Your task to perform on an android device: Go to sound settings Image 0: 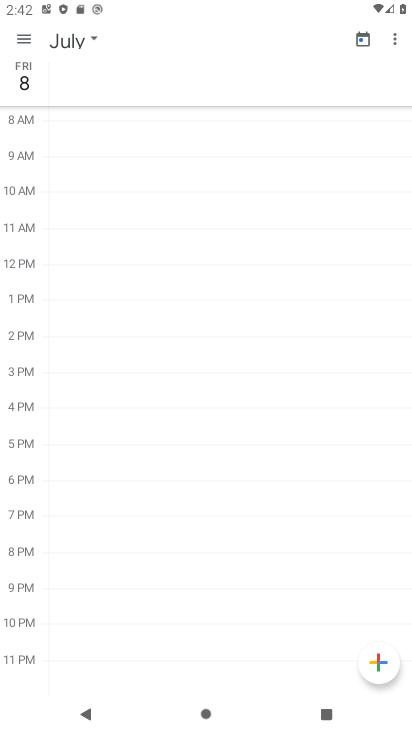
Step 0: press home button
Your task to perform on an android device: Go to sound settings Image 1: 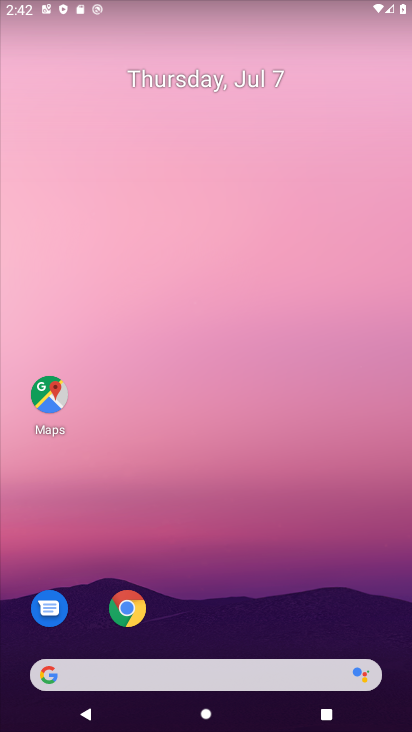
Step 1: drag from (399, 687) to (353, 119)
Your task to perform on an android device: Go to sound settings Image 2: 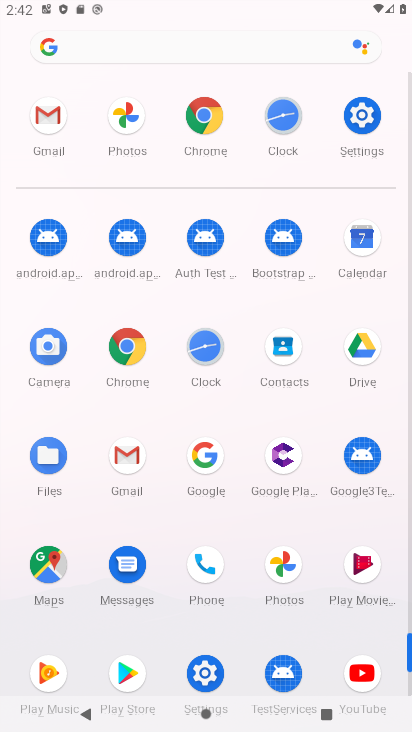
Step 2: click (408, 685)
Your task to perform on an android device: Go to sound settings Image 3: 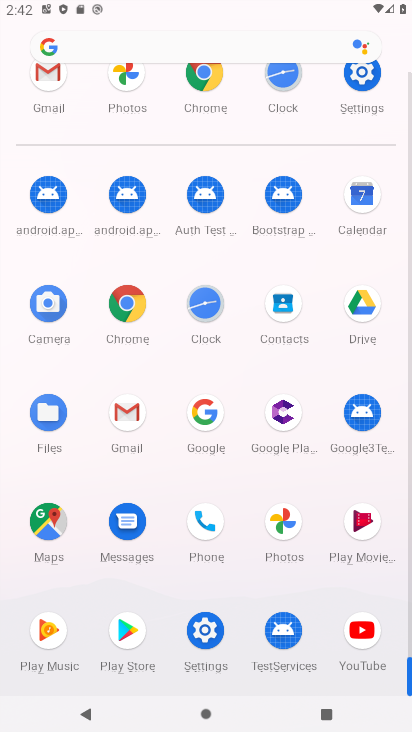
Step 3: click (204, 632)
Your task to perform on an android device: Go to sound settings Image 4: 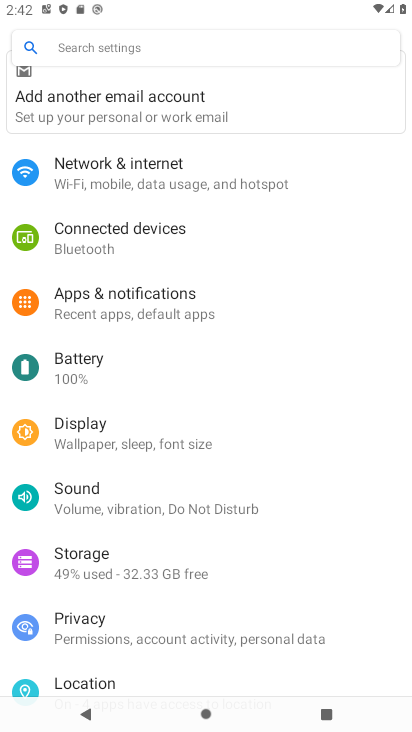
Step 4: click (70, 499)
Your task to perform on an android device: Go to sound settings Image 5: 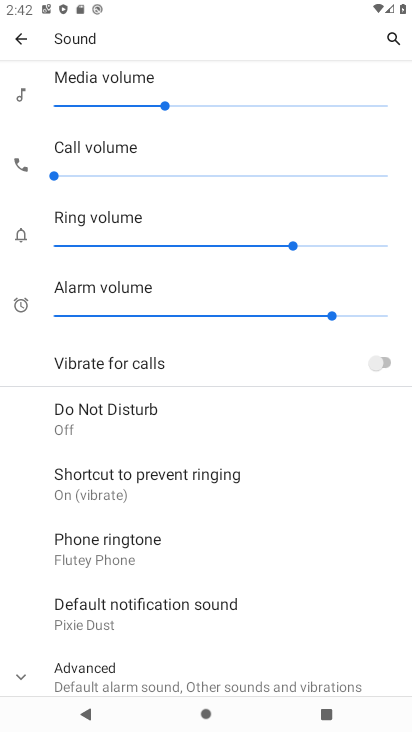
Step 5: drag from (329, 634) to (349, 233)
Your task to perform on an android device: Go to sound settings Image 6: 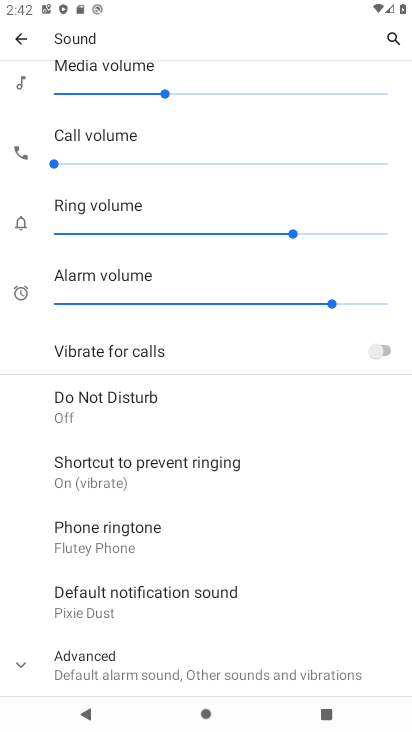
Step 6: click (14, 661)
Your task to perform on an android device: Go to sound settings Image 7: 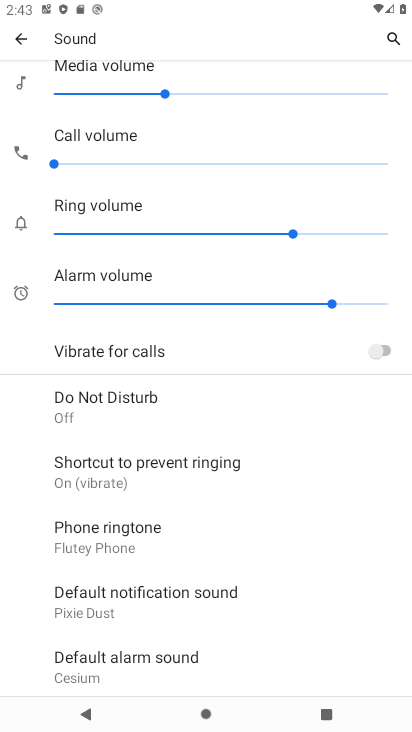
Step 7: task complete